Your task to perform on an android device: read, delete, or share a saved page in the chrome app Image 0: 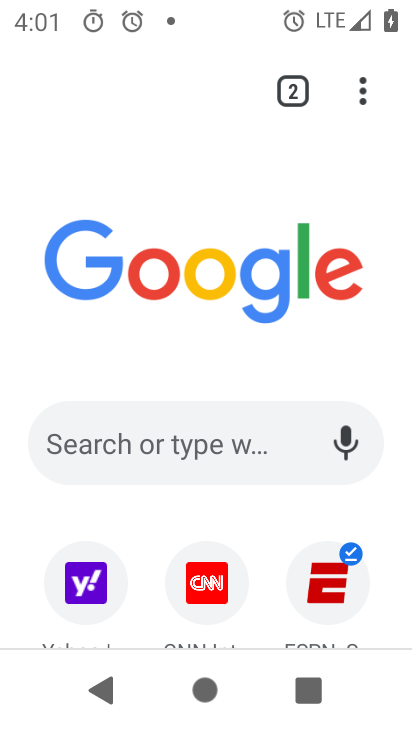
Step 0: click (366, 92)
Your task to perform on an android device: read, delete, or share a saved page in the chrome app Image 1: 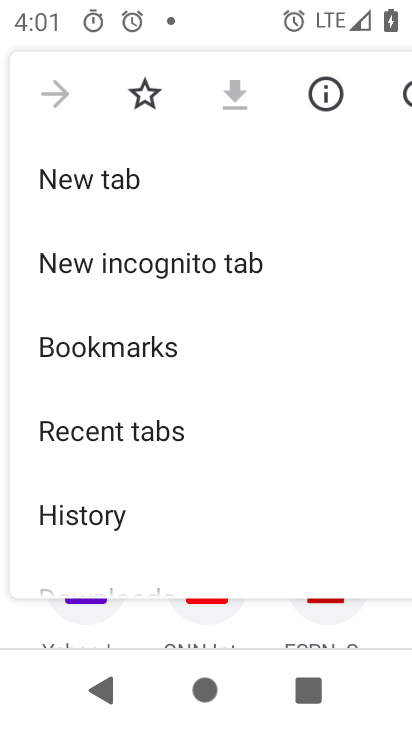
Step 1: drag from (220, 468) to (229, 203)
Your task to perform on an android device: read, delete, or share a saved page in the chrome app Image 2: 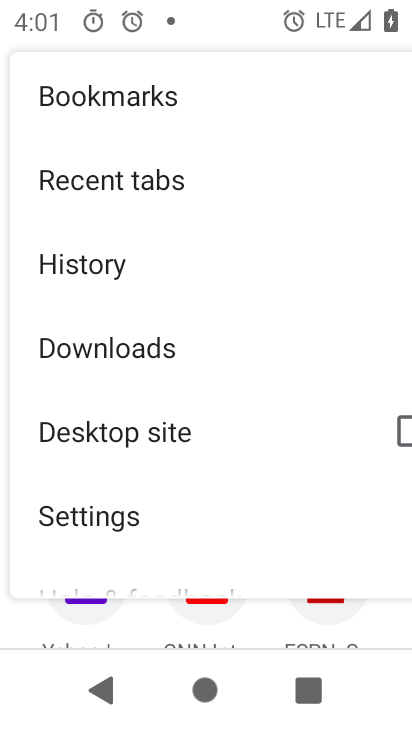
Step 2: click (104, 354)
Your task to perform on an android device: read, delete, or share a saved page in the chrome app Image 3: 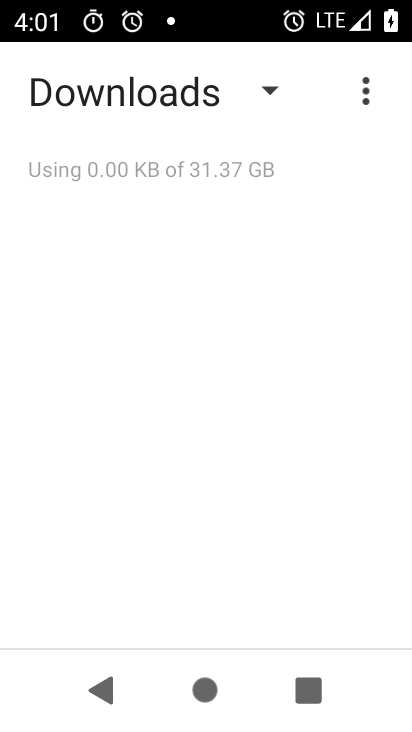
Step 3: click (271, 88)
Your task to perform on an android device: read, delete, or share a saved page in the chrome app Image 4: 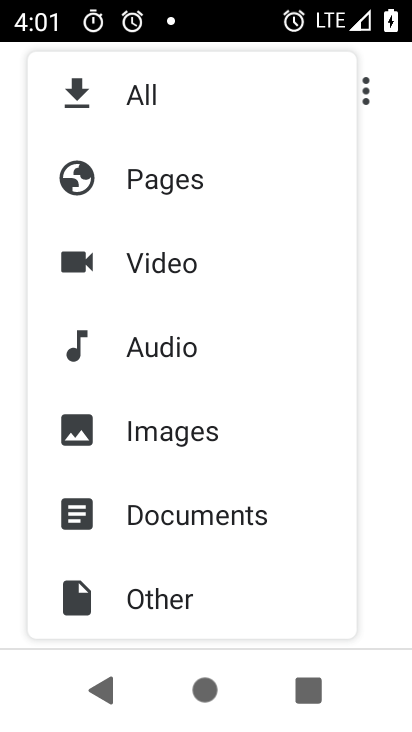
Step 4: click (151, 185)
Your task to perform on an android device: read, delete, or share a saved page in the chrome app Image 5: 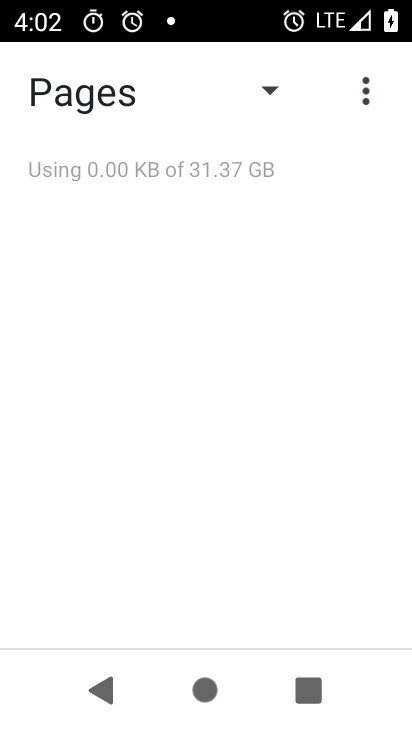
Step 5: task complete